Your task to perform on an android device: Open the map Image 0: 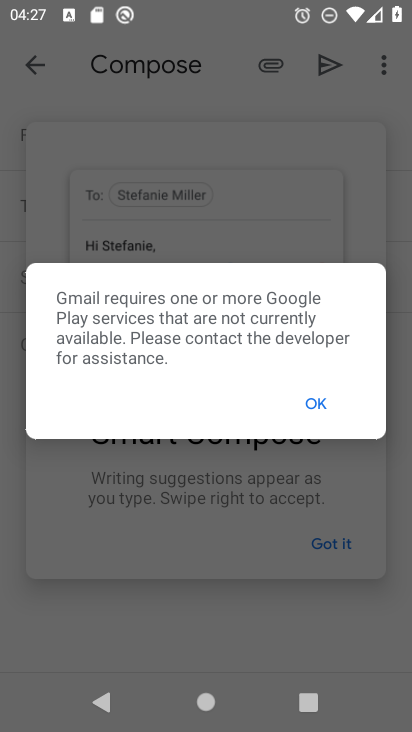
Step 0: press home button
Your task to perform on an android device: Open the map Image 1: 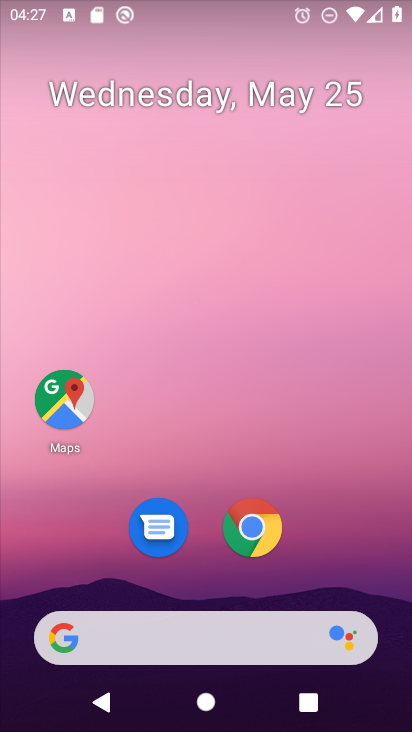
Step 1: drag from (214, 454) to (154, 63)
Your task to perform on an android device: Open the map Image 2: 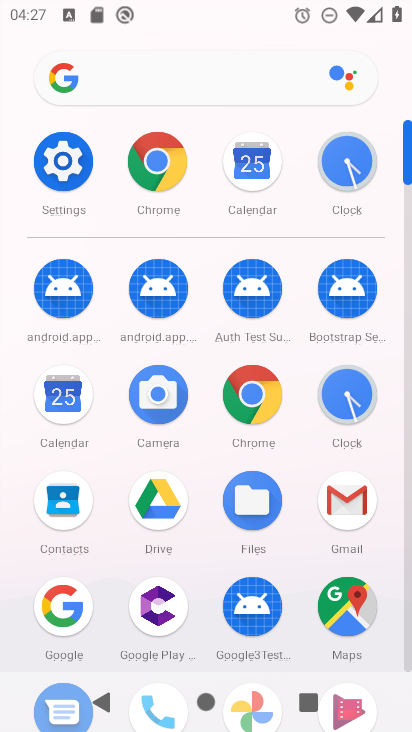
Step 2: click (340, 617)
Your task to perform on an android device: Open the map Image 3: 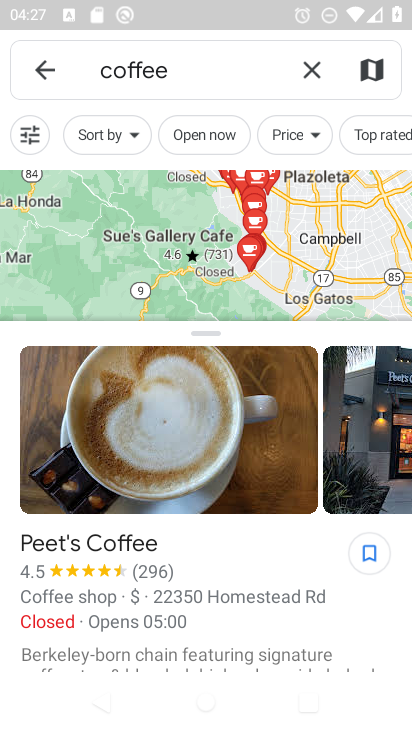
Step 3: task complete